Your task to perform on an android device: turn off airplane mode Image 0: 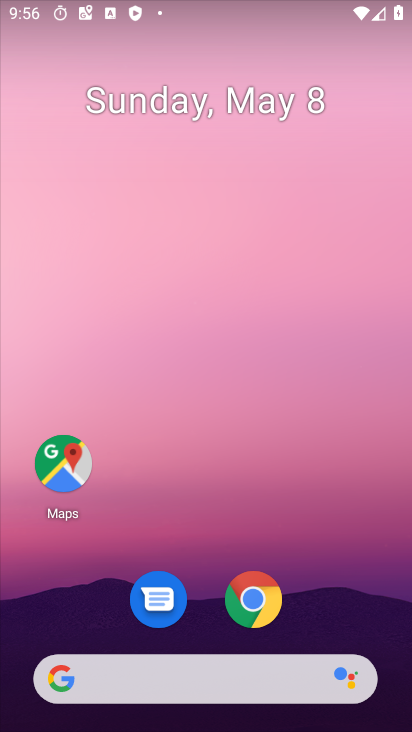
Step 0: drag from (242, 648) to (311, 47)
Your task to perform on an android device: turn off airplane mode Image 1: 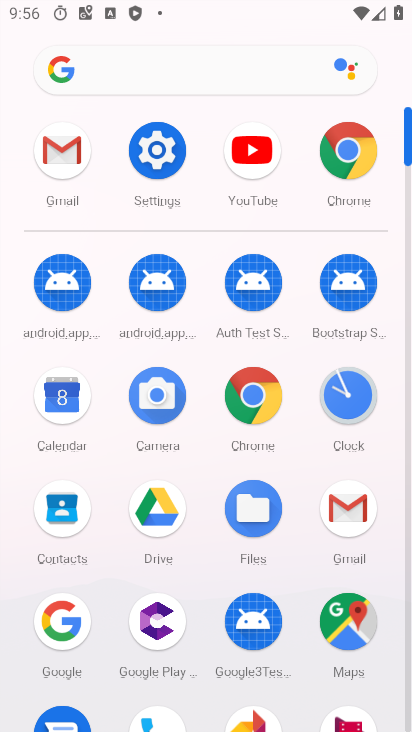
Step 1: click (153, 162)
Your task to perform on an android device: turn off airplane mode Image 2: 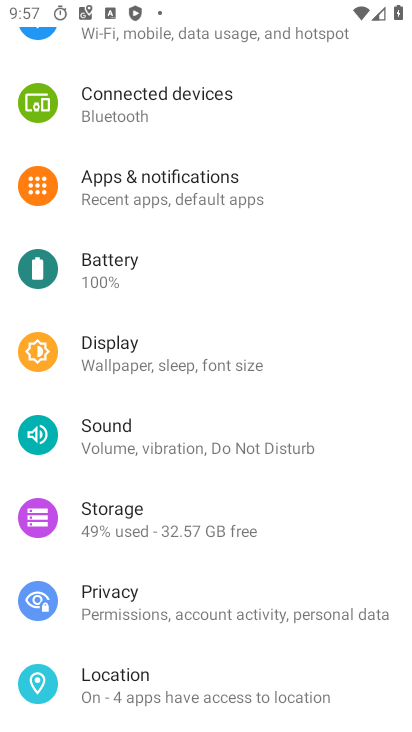
Step 2: drag from (173, 251) to (174, 508)
Your task to perform on an android device: turn off airplane mode Image 3: 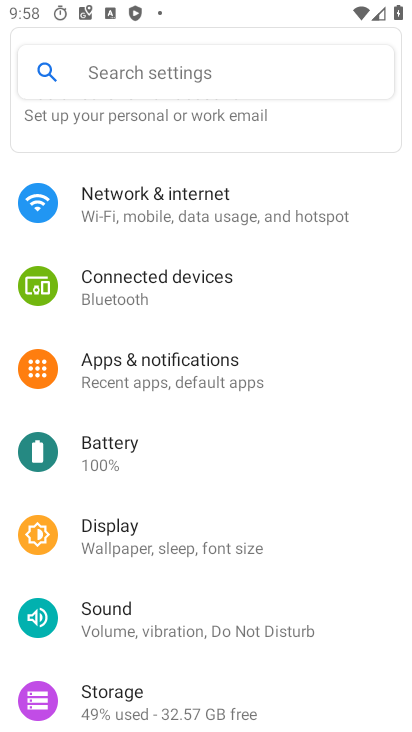
Step 3: click (202, 197)
Your task to perform on an android device: turn off airplane mode Image 4: 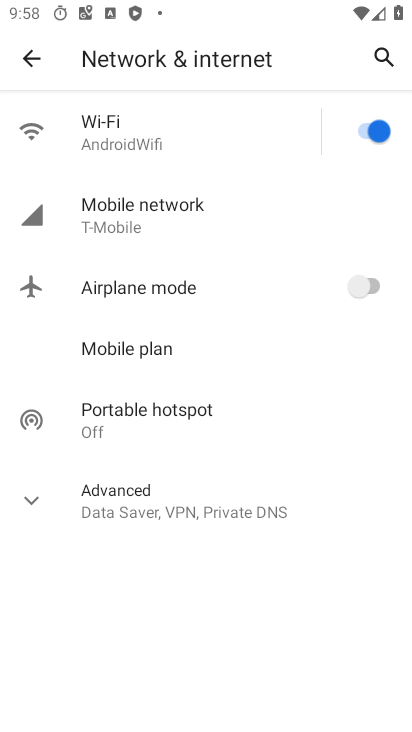
Step 4: click (381, 196)
Your task to perform on an android device: turn off airplane mode Image 5: 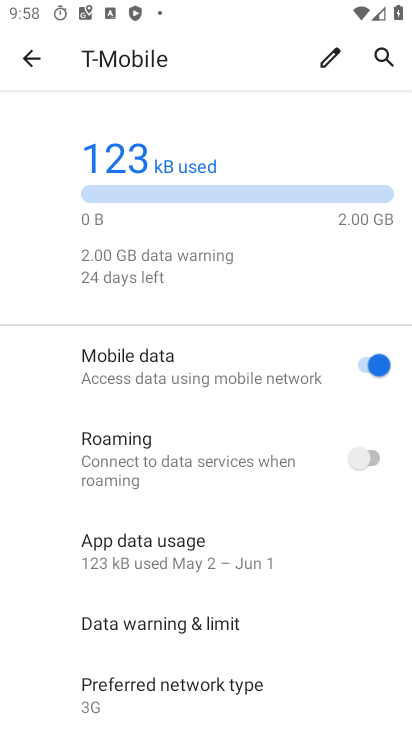
Step 5: task complete